Your task to perform on an android device: make emails show in primary in the gmail app Image 0: 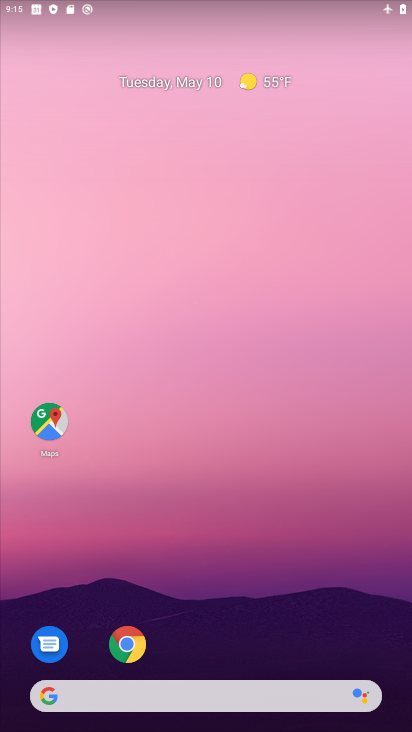
Step 0: drag from (273, 635) to (267, 130)
Your task to perform on an android device: make emails show in primary in the gmail app Image 1: 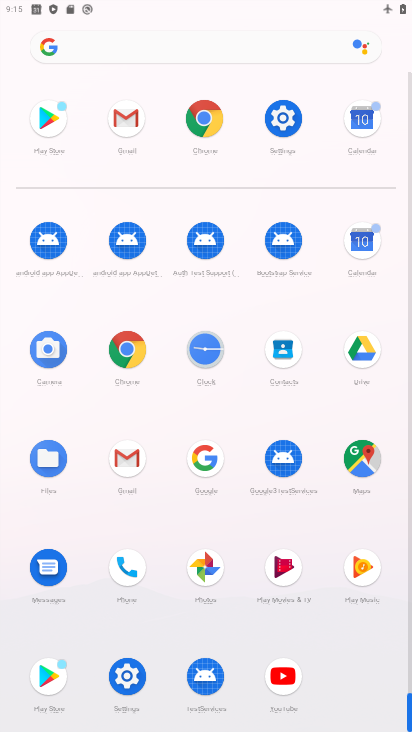
Step 1: click (127, 450)
Your task to perform on an android device: make emails show in primary in the gmail app Image 2: 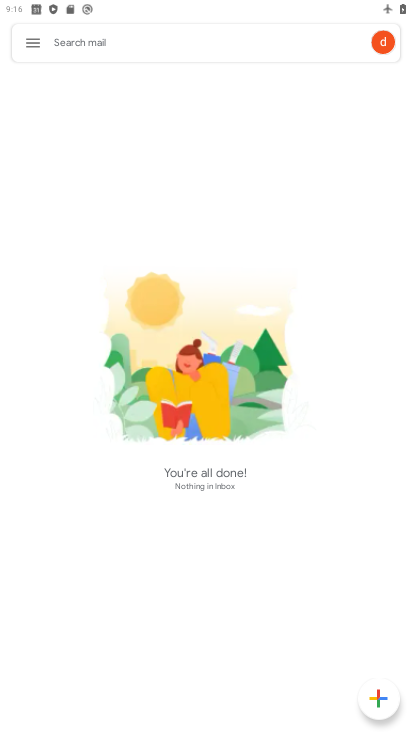
Step 2: click (28, 39)
Your task to perform on an android device: make emails show in primary in the gmail app Image 3: 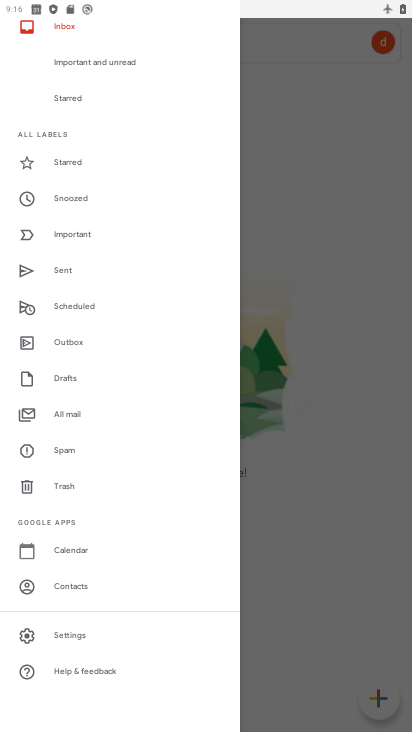
Step 3: click (48, 422)
Your task to perform on an android device: make emails show in primary in the gmail app Image 4: 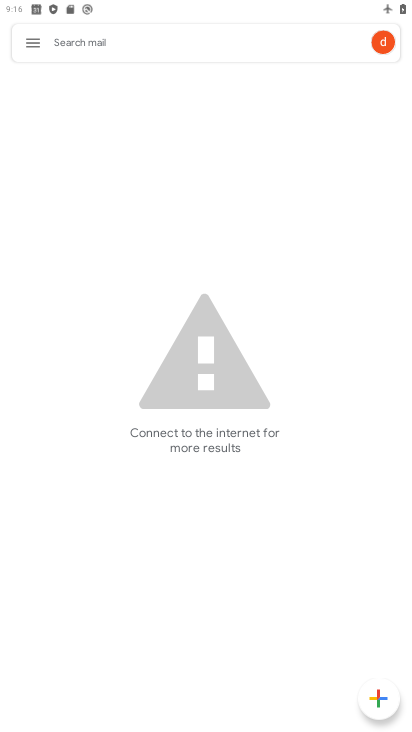
Step 4: task complete